Your task to perform on an android device: Go to calendar. Show me events next week Image 0: 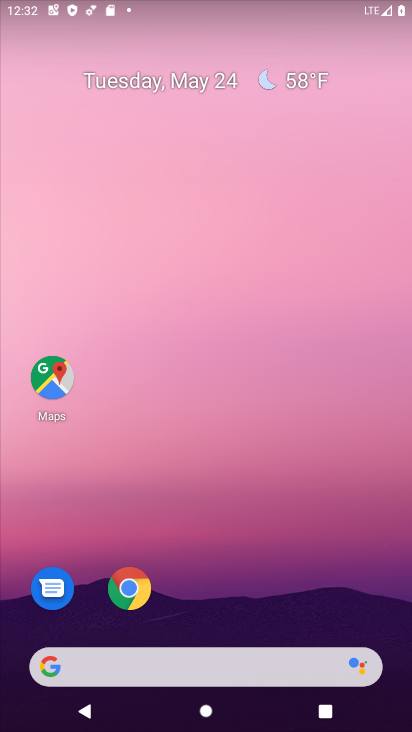
Step 0: click (143, 593)
Your task to perform on an android device: Go to calendar. Show me events next week Image 1: 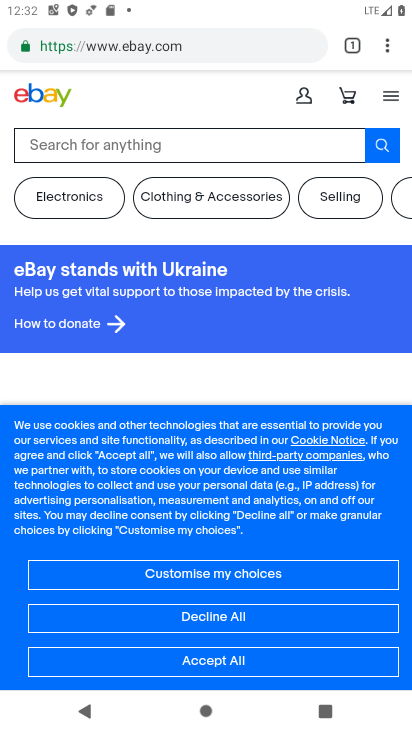
Step 1: press home button
Your task to perform on an android device: Go to calendar. Show me events next week Image 2: 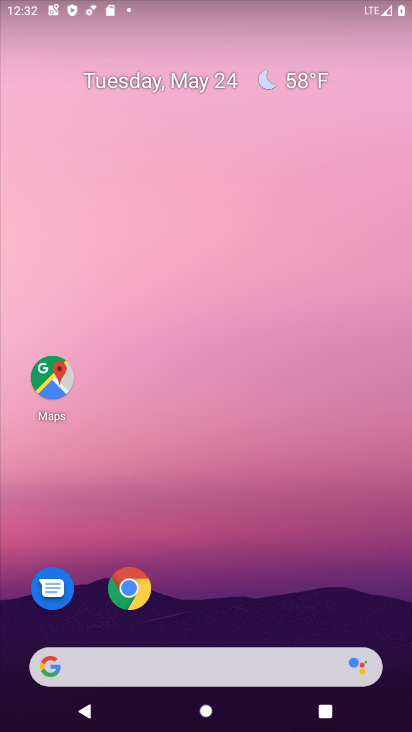
Step 2: drag from (185, 644) to (201, 85)
Your task to perform on an android device: Go to calendar. Show me events next week Image 3: 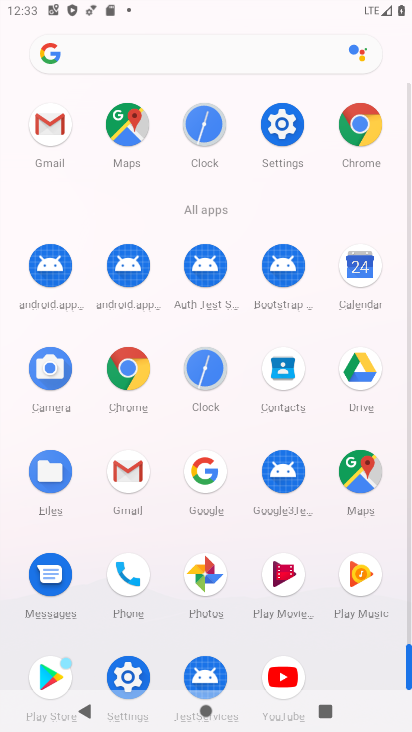
Step 3: click (375, 276)
Your task to perform on an android device: Go to calendar. Show me events next week Image 4: 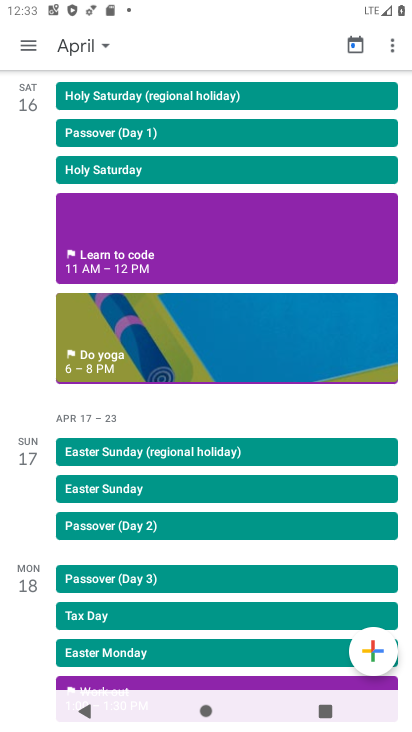
Step 4: click (28, 45)
Your task to perform on an android device: Go to calendar. Show me events next week Image 5: 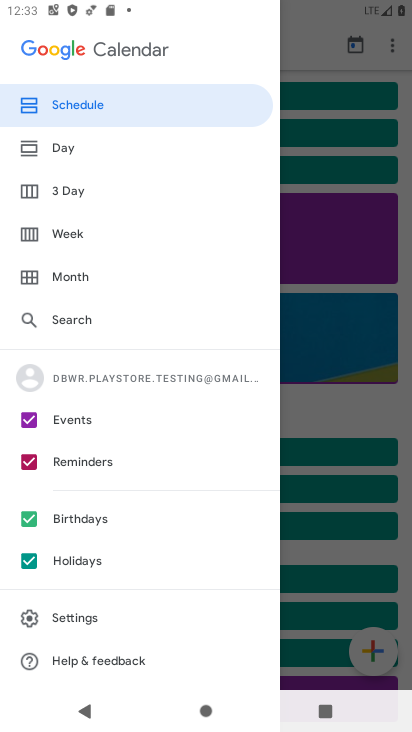
Step 5: click (77, 240)
Your task to perform on an android device: Go to calendar. Show me events next week Image 6: 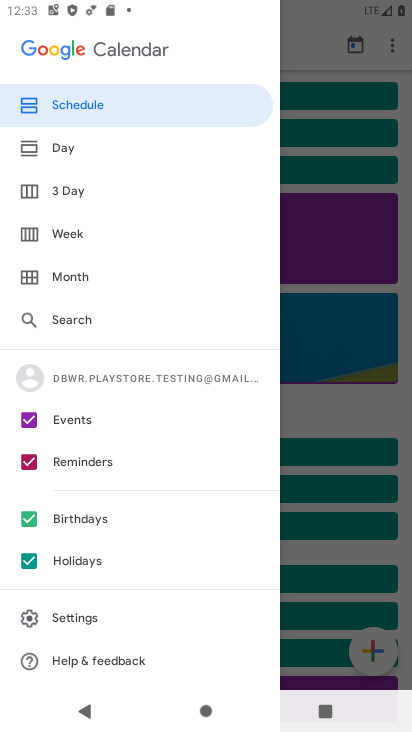
Step 6: click (70, 231)
Your task to perform on an android device: Go to calendar. Show me events next week Image 7: 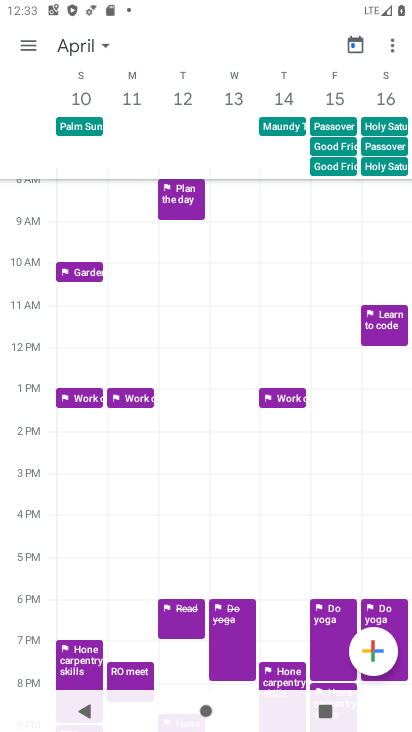
Step 7: click (76, 54)
Your task to perform on an android device: Go to calendar. Show me events next week Image 8: 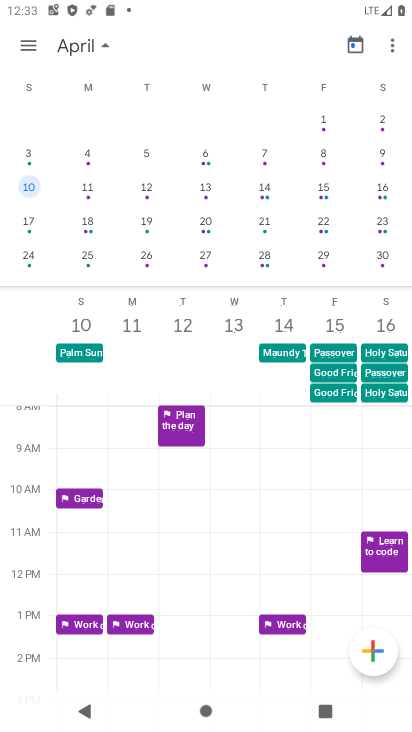
Step 8: drag from (329, 219) to (7, 236)
Your task to perform on an android device: Go to calendar. Show me events next week Image 9: 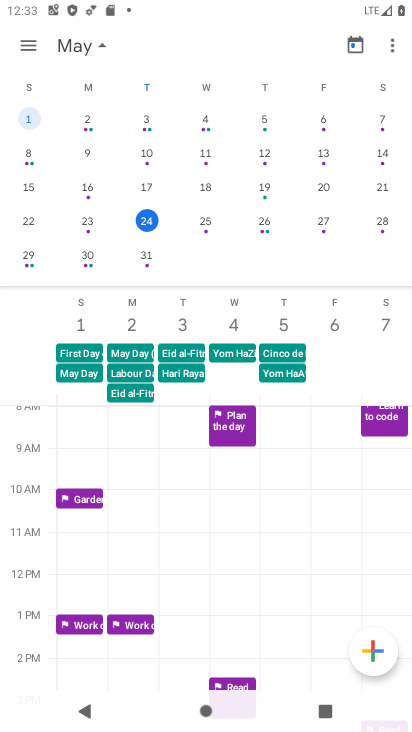
Step 9: click (27, 254)
Your task to perform on an android device: Go to calendar. Show me events next week Image 10: 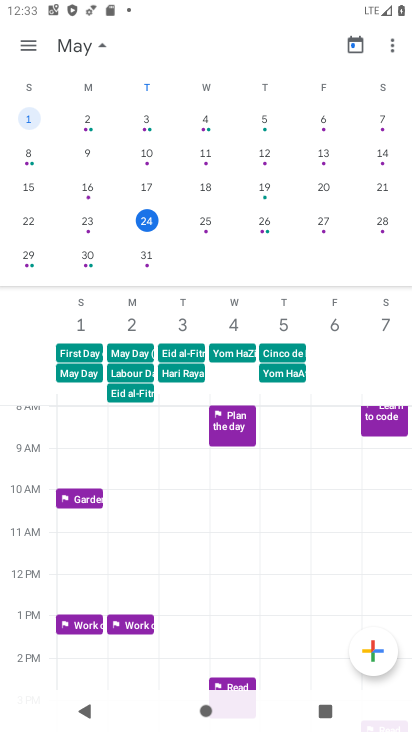
Step 10: click (31, 264)
Your task to perform on an android device: Go to calendar. Show me events next week Image 11: 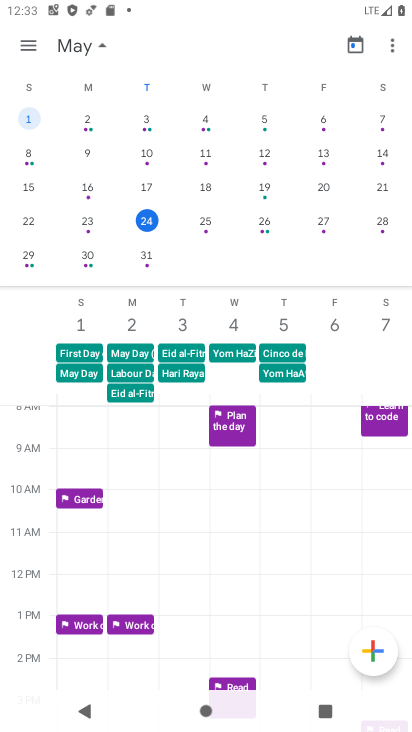
Step 11: click (34, 258)
Your task to perform on an android device: Go to calendar. Show me events next week Image 12: 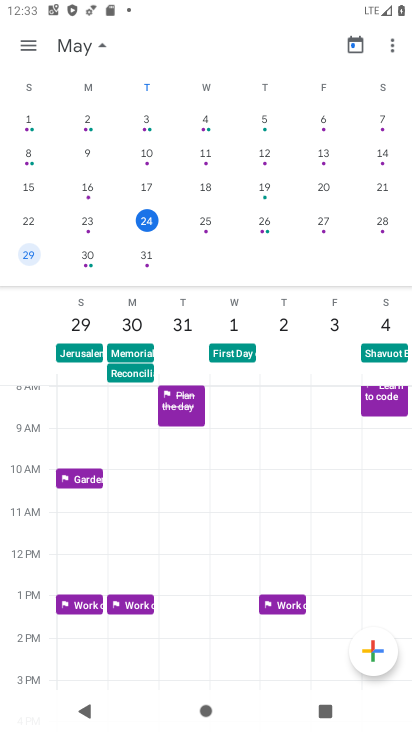
Step 12: drag from (186, 477) to (260, 140)
Your task to perform on an android device: Go to calendar. Show me events next week Image 13: 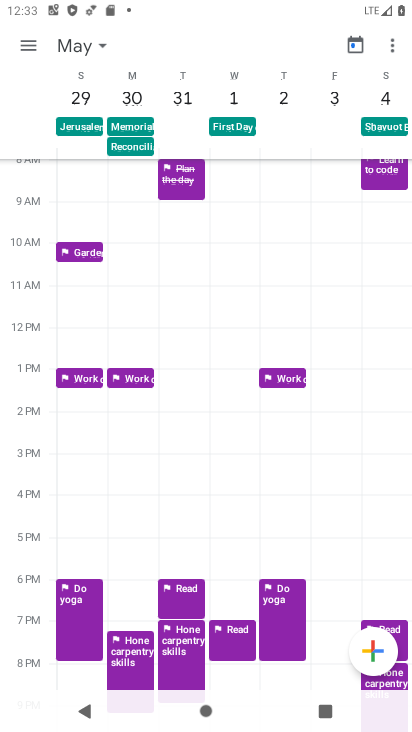
Step 13: drag from (224, 366) to (255, 182)
Your task to perform on an android device: Go to calendar. Show me events next week Image 14: 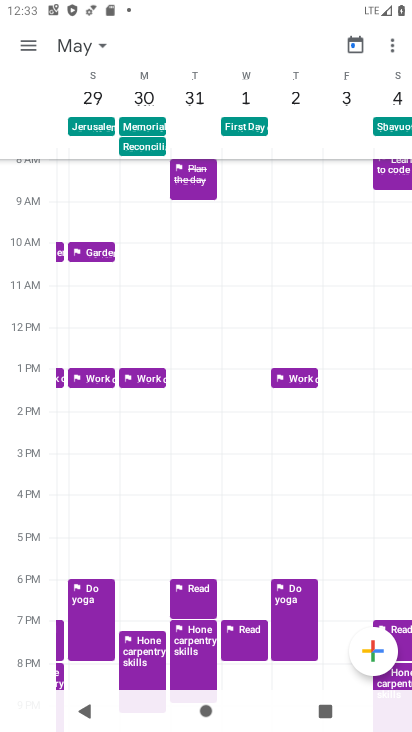
Step 14: click (318, 146)
Your task to perform on an android device: Go to calendar. Show me events next week Image 15: 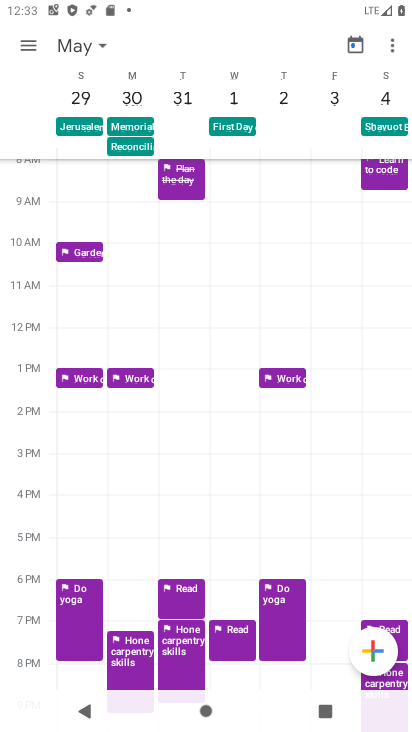
Step 15: task complete